Your task to perform on an android device: Go to Reddit.com Image 0: 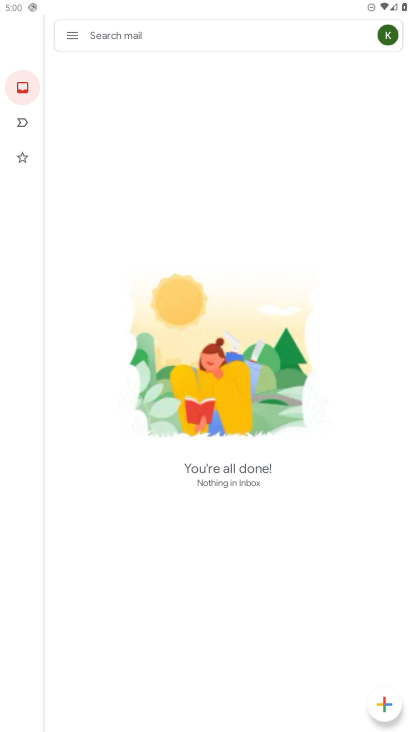
Step 0: press home button
Your task to perform on an android device: Go to Reddit.com Image 1: 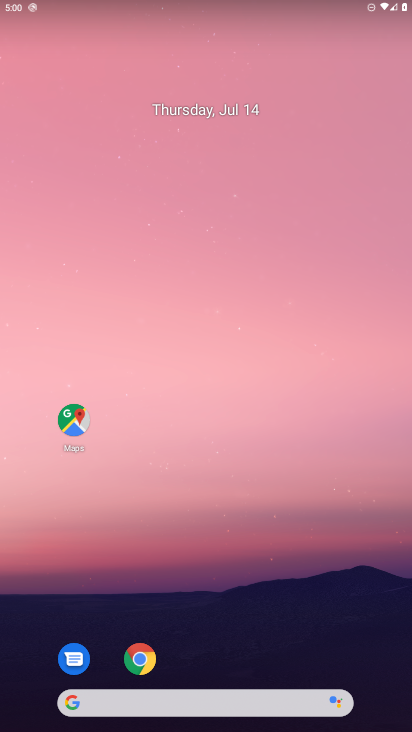
Step 1: drag from (209, 662) to (198, 39)
Your task to perform on an android device: Go to Reddit.com Image 2: 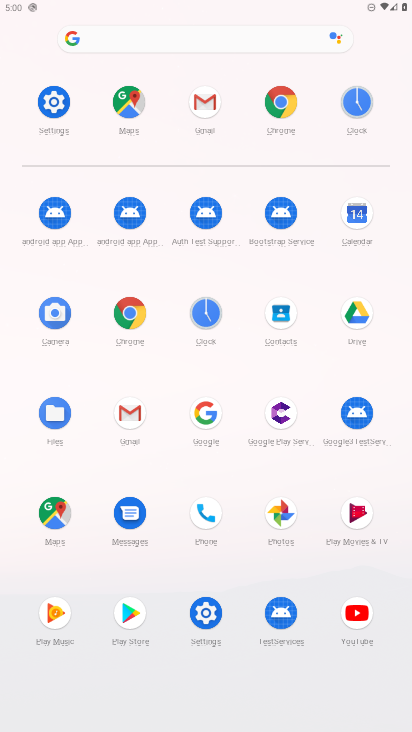
Step 2: click (273, 101)
Your task to perform on an android device: Go to Reddit.com Image 3: 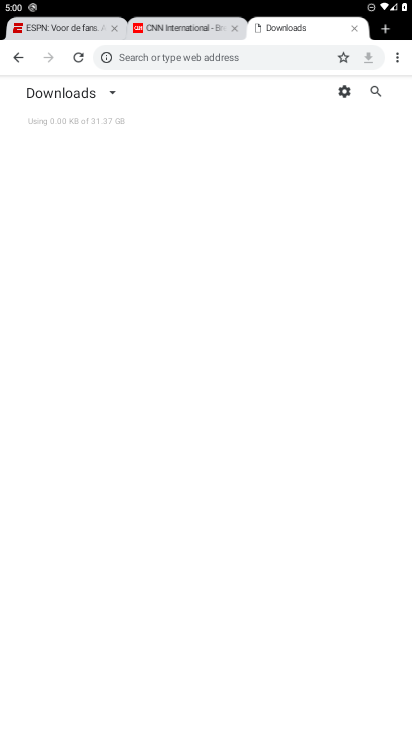
Step 3: click (352, 24)
Your task to perform on an android device: Go to Reddit.com Image 4: 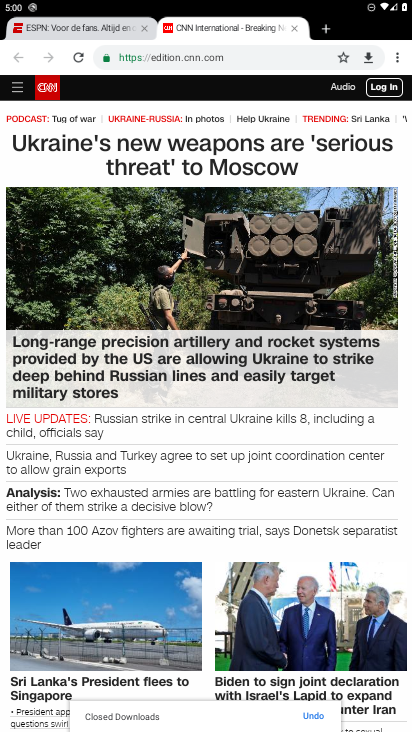
Step 4: click (270, 23)
Your task to perform on an android device: Go to Reddit.com Image 5: 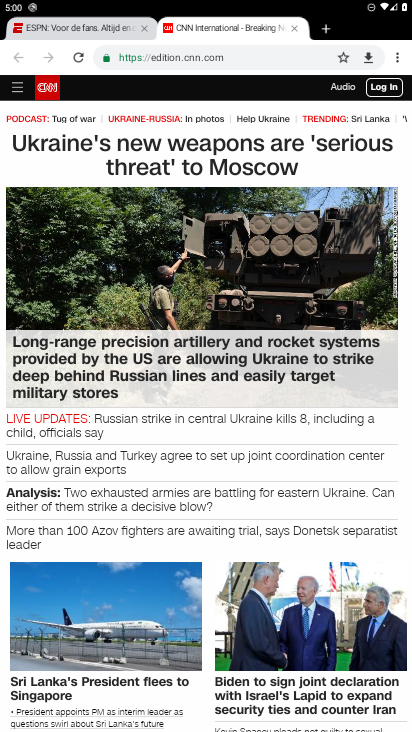
Step 5: click (318, 24)
Your task to perform on an android device: Go to Reddit.com Image 6: 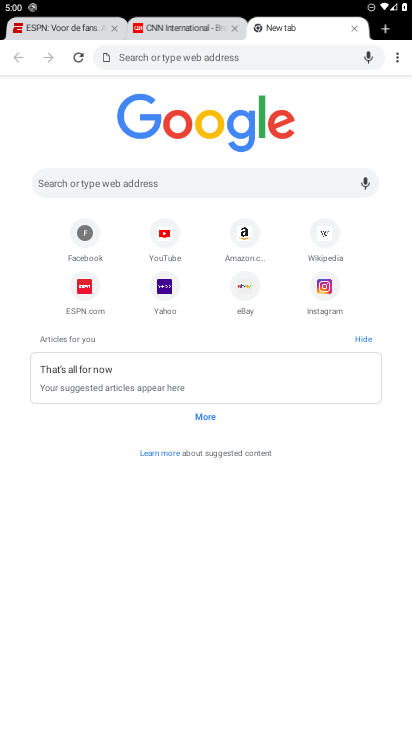
Step 6: click (196, 48)
Your task to perform on an android device: Go to Reddit.com Image 7: 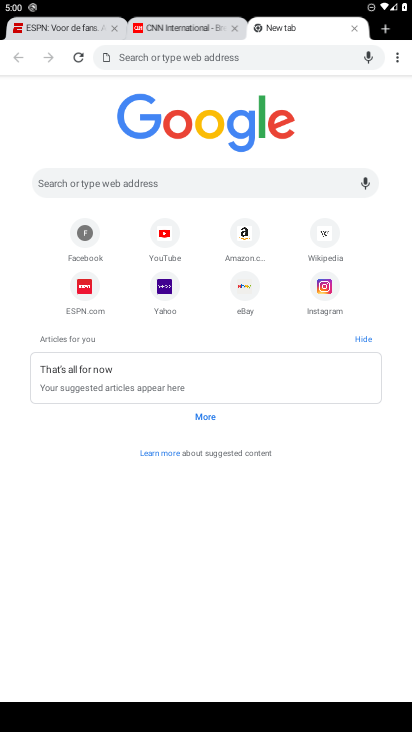
Step 7: type "reddit.com"
Your task to perform on an android device: Go to Reddit.com Image 8: 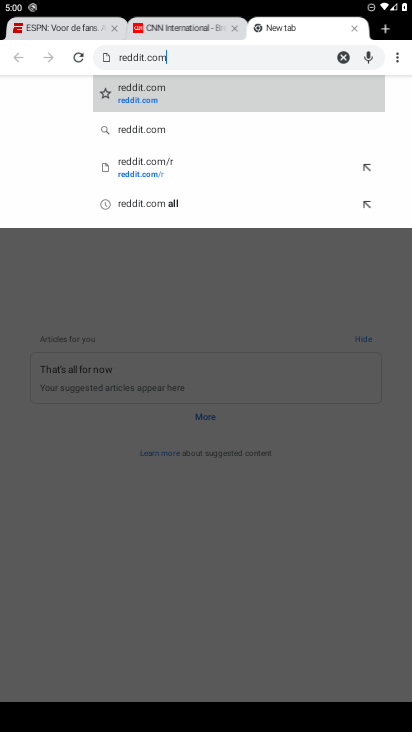
Step 8: click (134, 89)
Your task to perform on an android device: Go to Reddit.com Image 9: 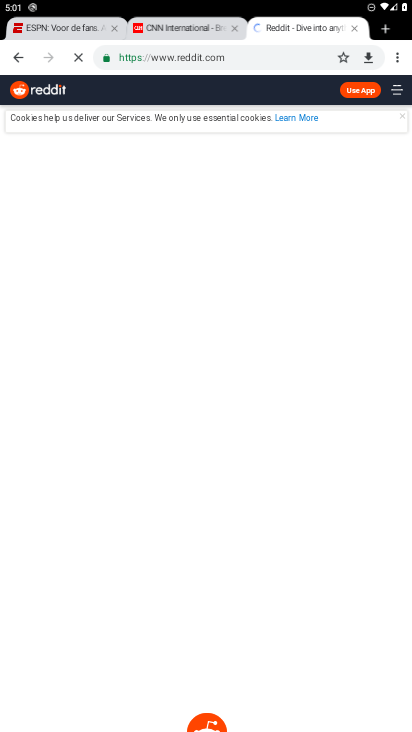
Step 9: task complete